Your task to perform on an android device: delete location history Image 0: 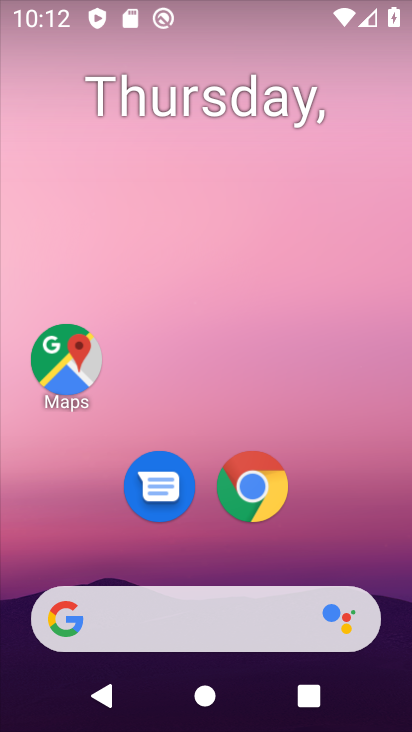
Step 0: click (76, 350)
Your task to perform on an android device: delete location history Image 1: 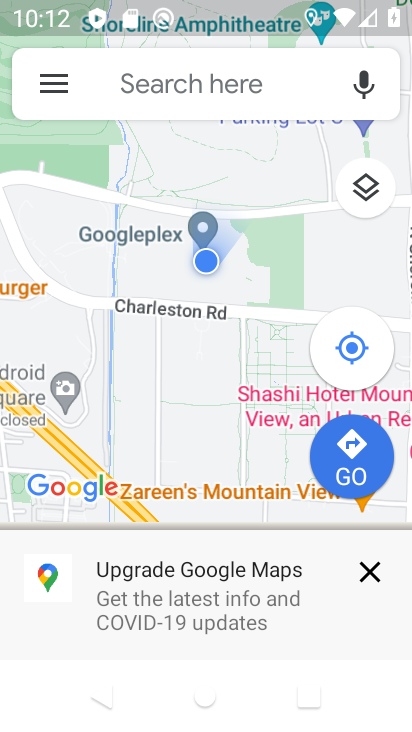
Step 1: click (47, 81)
Your task to perform on an android device: delete location history Image 2: 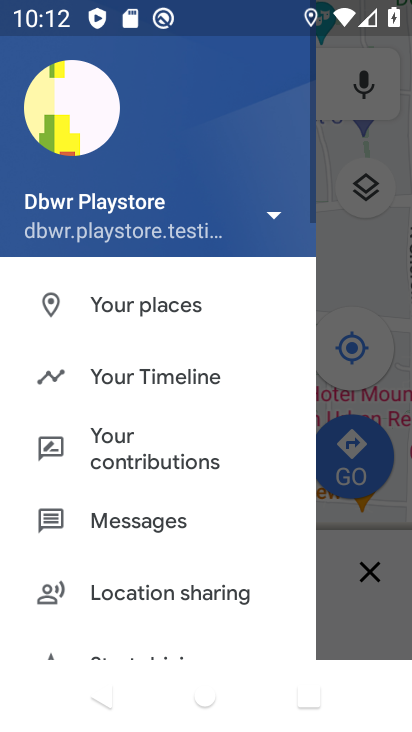
Step 2: click (143, 377)
Your task to perform on an android device: delete location history Image 3: 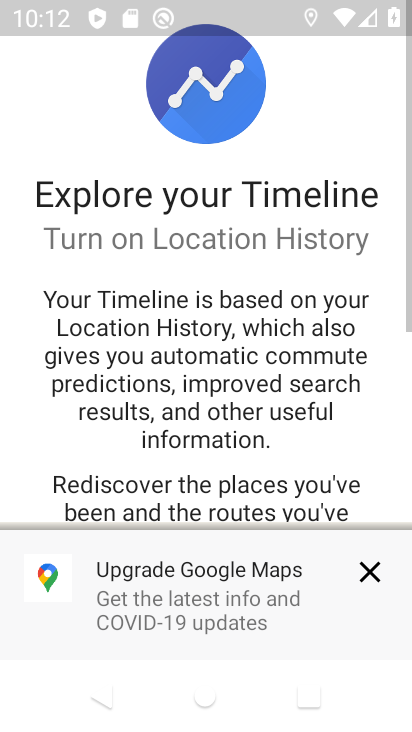
Step 3: click (365, 584)
Your task to perform on an android device: delete location history Image 4: 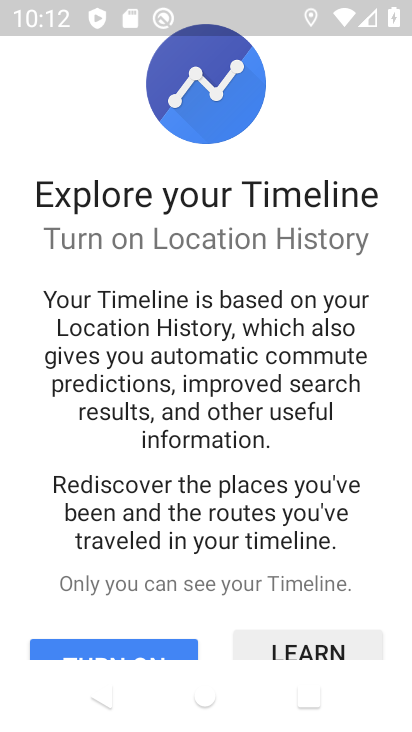
Step 4: drag from (160, 511) to (320, 38)
Your task to perform on an android device: delete location history Image 5: 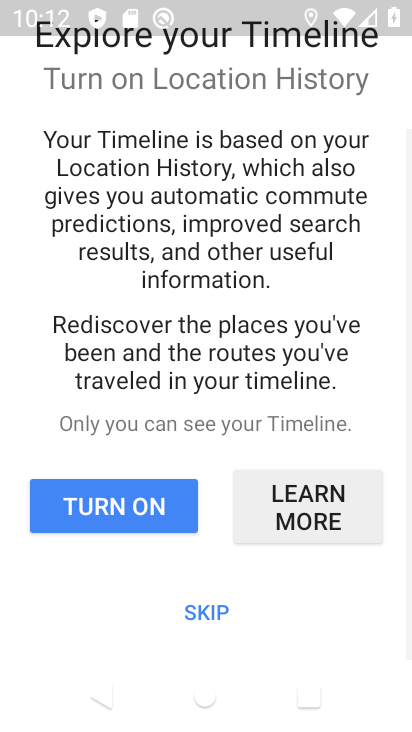
Step 5: click (223, 600)
Your task to perform on an android device: delete location history Image 6: 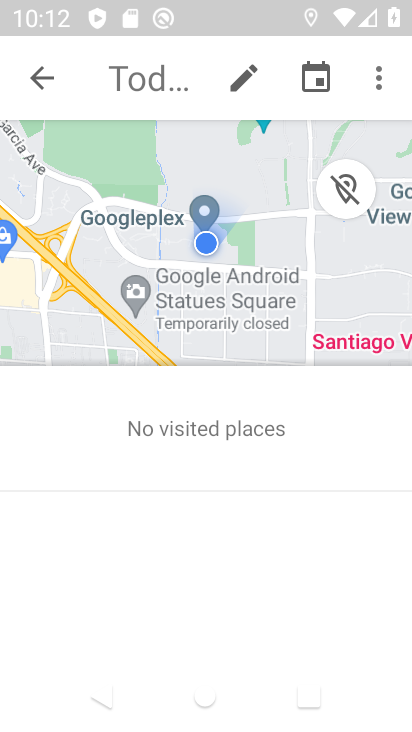
Step 6: click (384, 70)
Your task to perform on an android device: delete location history Image 7: 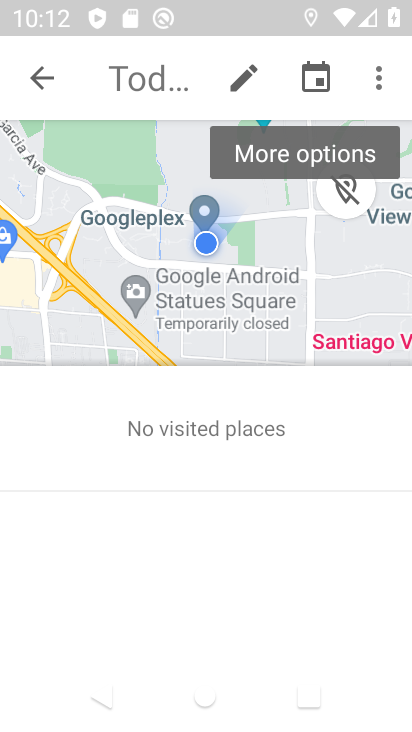
Step 7: click (380, 73)
Your task to perform on an android device: delete location history Image 8: 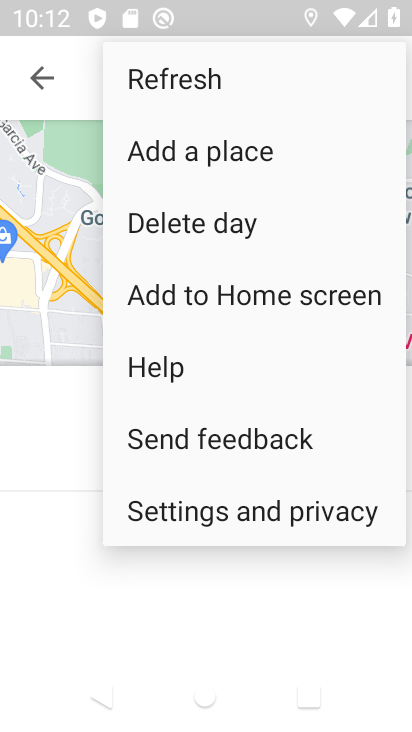
Step 8: click (202, 512)
Your task to perform on an android device: delete location history Image 9: 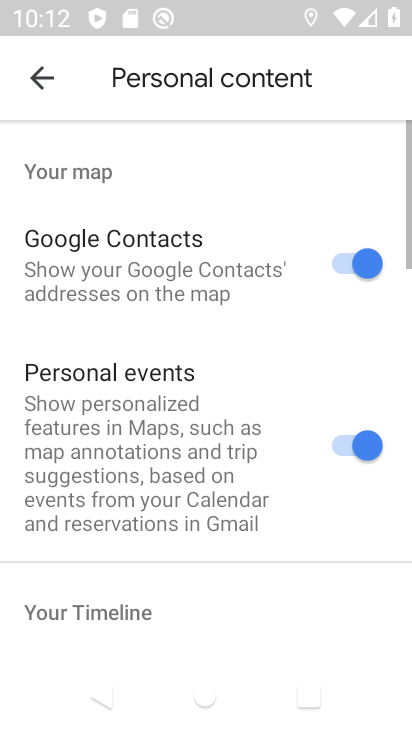
Step 9: drag from (203, 552) to (334, 46)
Your task to perform on an android device: delete location history Image 10: 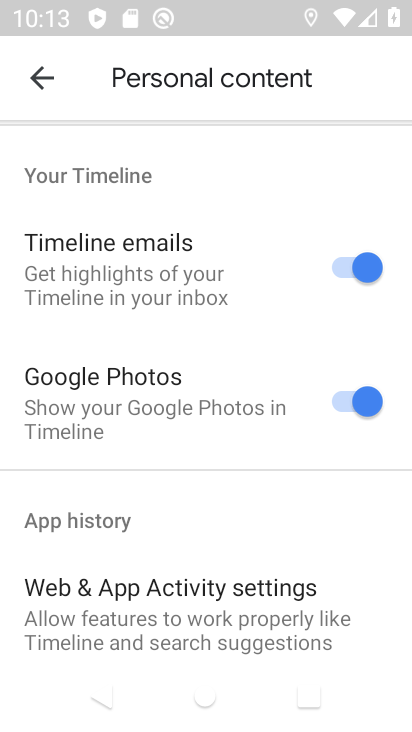
Step 10: drag from (157, 619) to (286, 157)
Your task to perform on an android device: delete location history Image 11: 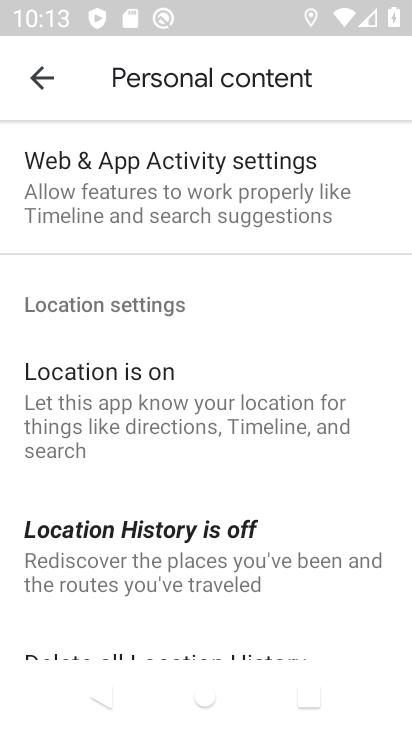
Step 11: drag from (172, 583) to (275, 264)
Your task to perform on an android device: delete location history Image 12: 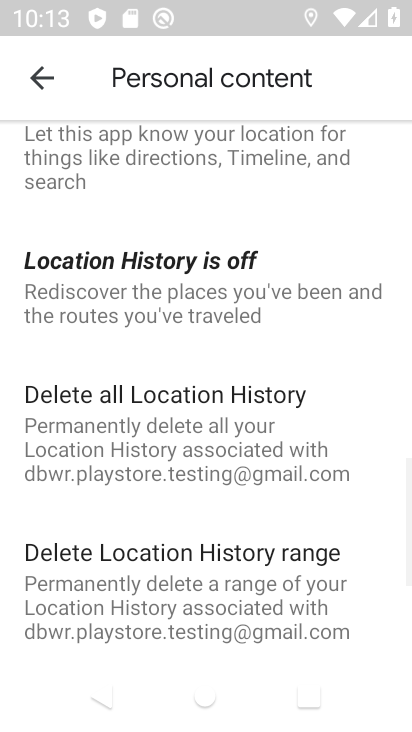
Step 12: click (170, 458)
Your task to perform on an android device: delete location history Image 13: 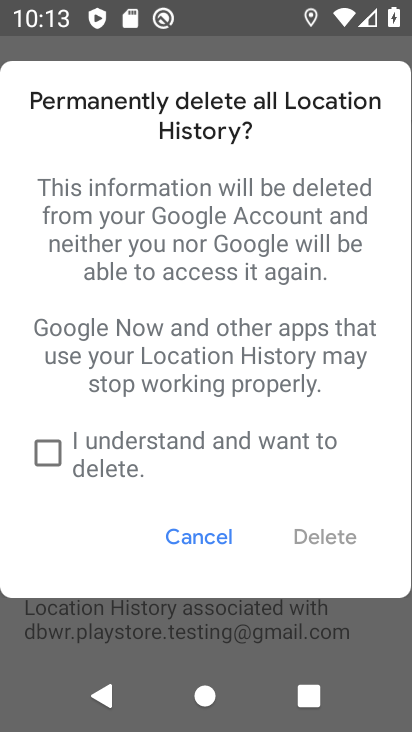
Step 13: click (55, 440)
Your task to perform on an android device: delete location history Image 14: 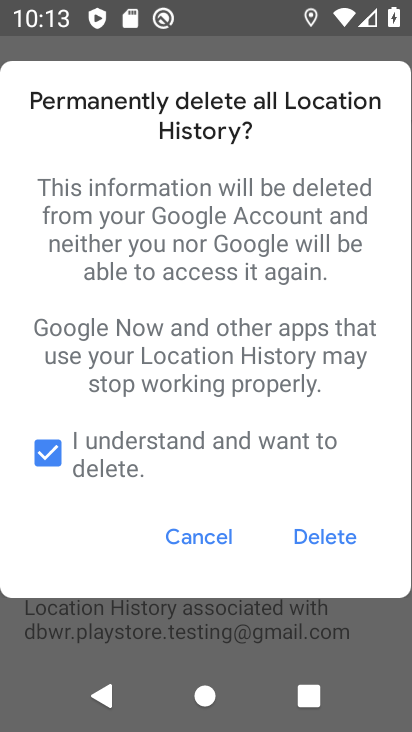
Step 14: click (323, 518)
Your task to perform on an android device: delete location history Image 15: 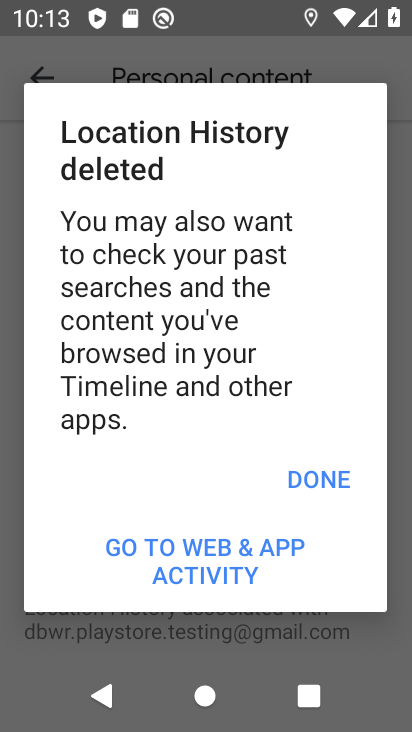
Step 15: click (311, 466)
Your task to perform on an android device: delete location history Image 16: 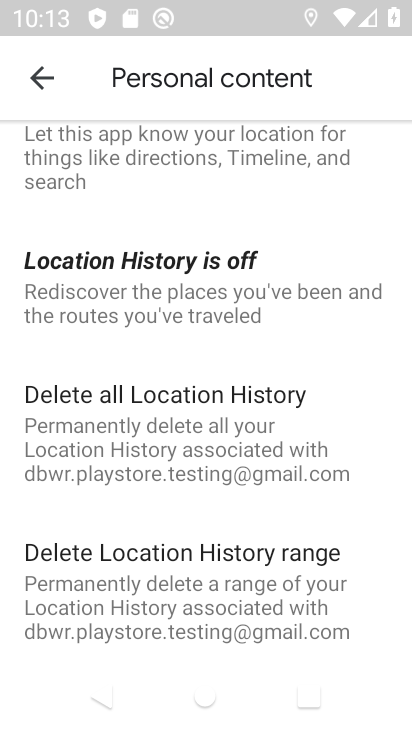
Step 16: task complete